Your task to perform on an android device: set an alarm Image 0: 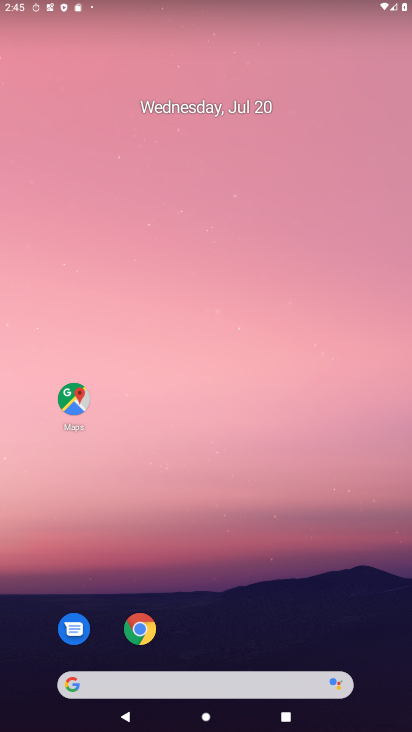
Step 0: press home button
Your task to perform on an android device: set an alarm Image 1: 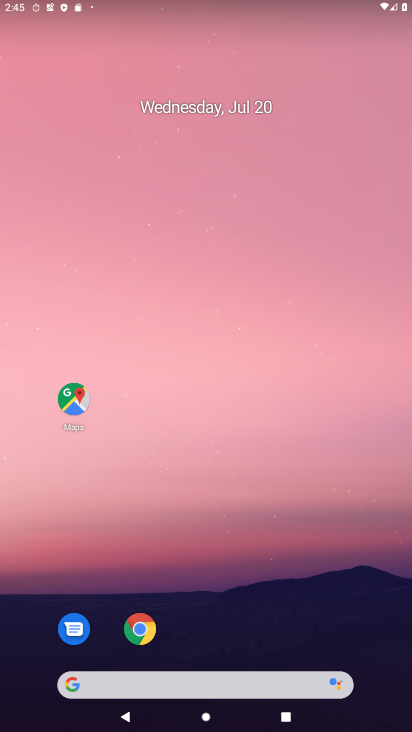
Step 1: drag from (226, 650) to (257, 70)
Your task to perform on an android device: set an alarm Image 2: 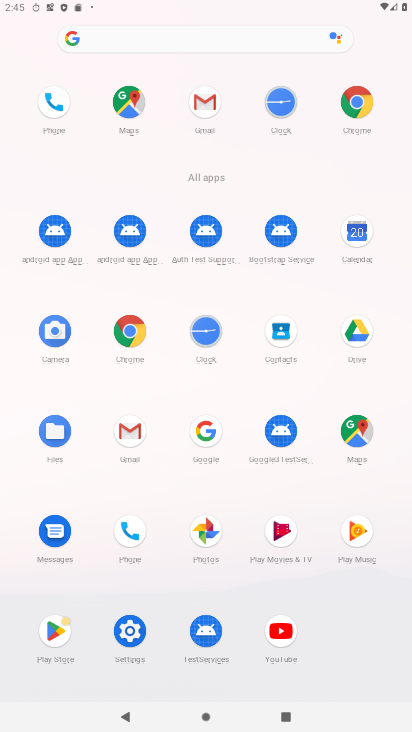
Step 2: click (204, 326)
Your task to perform on an android device: set an alarm Image 3: 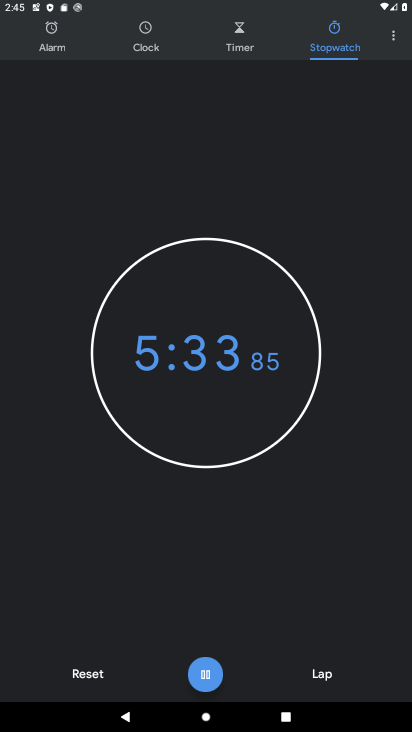
Step 3: click (46, 31)
Your task to perform on an android device: set an alarm Image 4: 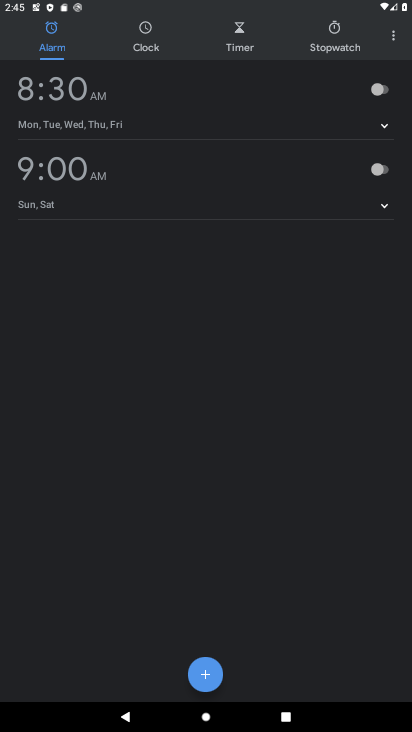
Step 4: click (385, 92)
Your task to perform on an android device: set an alarm Image 5: 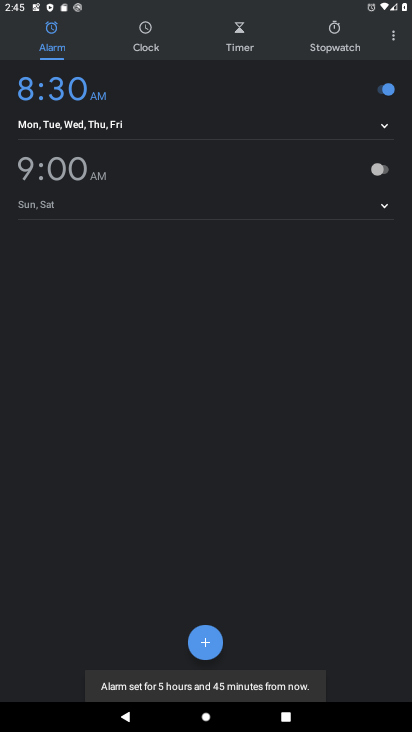
Step 5: task complete